Your task to perform on an android device: Open network settings Image 0: 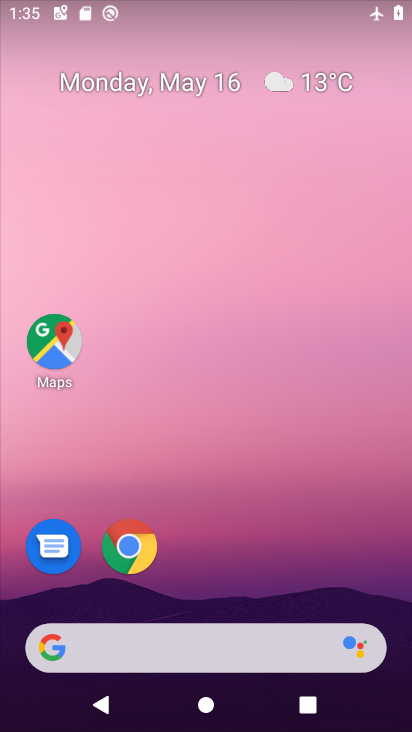
Step 0: drag from (224, 722) to (240, 92)
Your task to perform on an android device: Open network settings Image 1: 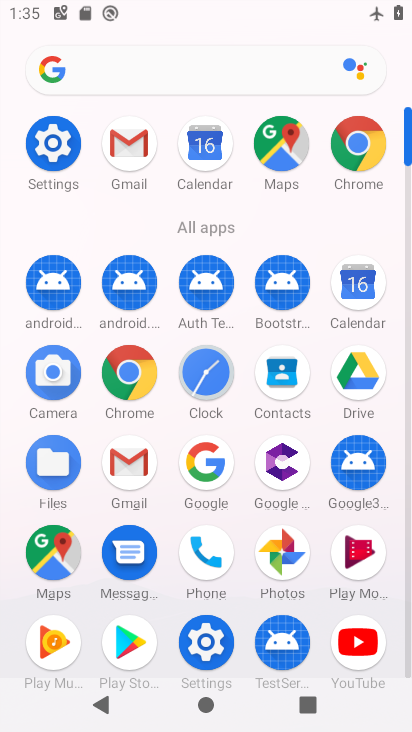
Step 1: click (48, 137)
Your task to perform on an android device: Open network settings Image 2: 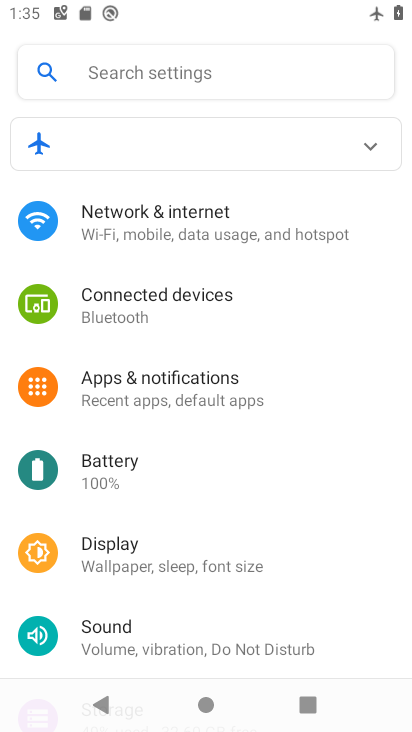
Step 2: click (126, 228)
Your task to perform on an android device: Open network settings Image 3: 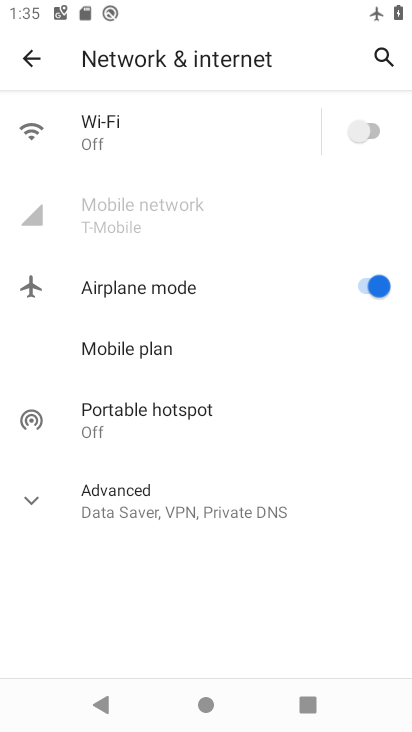
Step 3: task complete